Your task to perform on an android device: Turn off the flashlight Image 0: 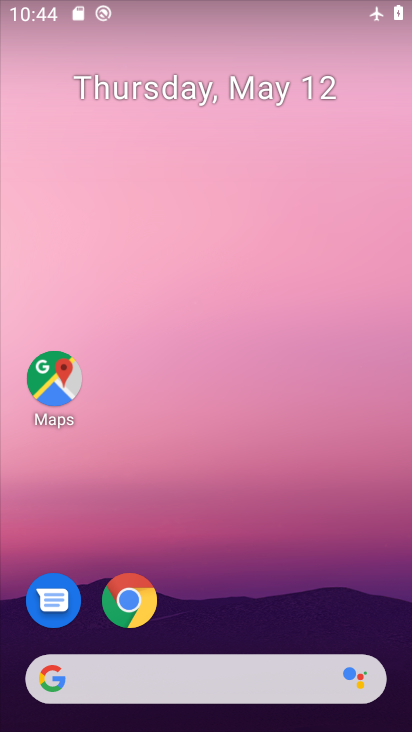
Step 0: drag from (225, 583) to (92, 128)
Your task to perform on an android device: Turn off the flashlight Image 1: 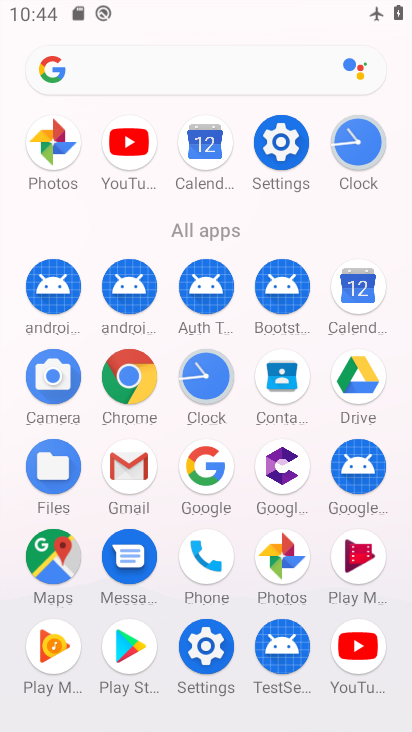
Step 1: click (293, 127)
Your task to perform on an android device: Turn off the flashlight Image 2: 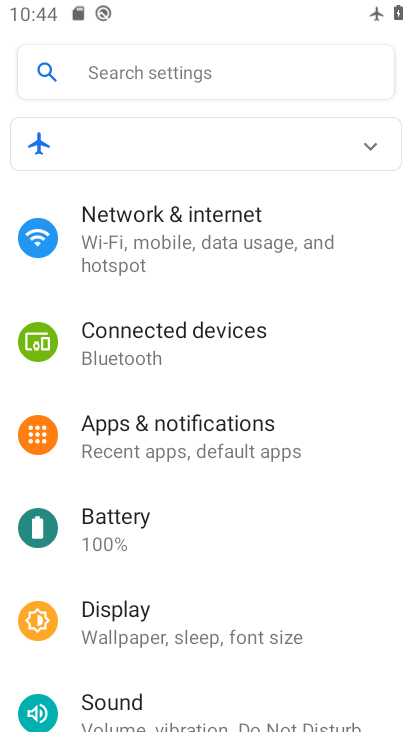
Step 2: click (180, 73)
Your task to perform on an android device: Turn off the flashlight Image 3: 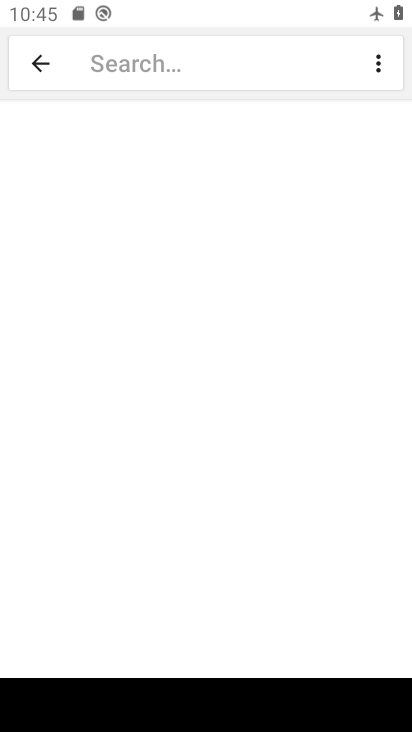
Step 3: type "flashlight"
Your task to perform on an android device: Turn off the flashlight Image 4: 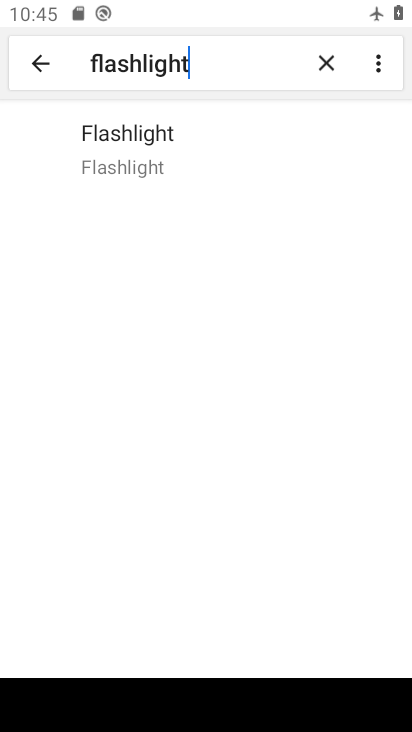
Step 4: click (141, 162)
Your task to perform on an android device: Turn off the flashlight Image 5: 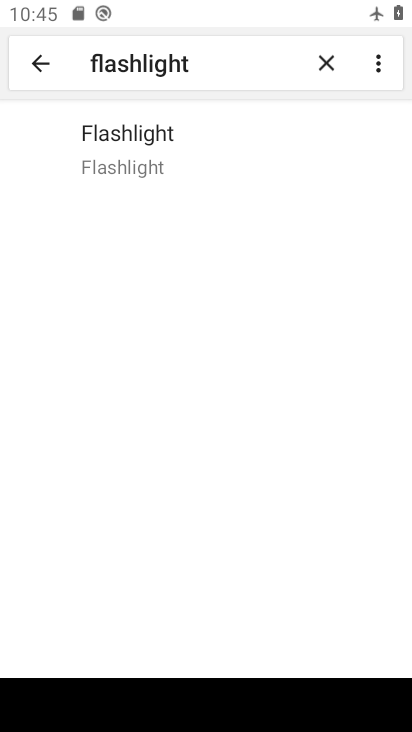
Step 5: click (141, 162)
Your task to perform on an android device: Turn off the flashlight Image 6: 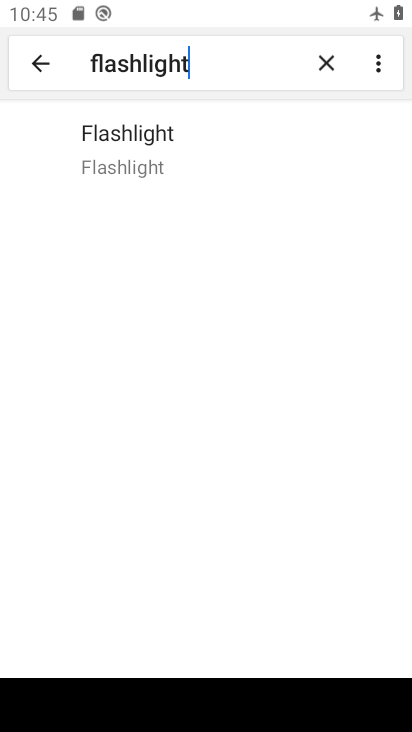
Step 6: click (142, 161)
Your task to perform on an android device: Turn off the flashlight Image 7: 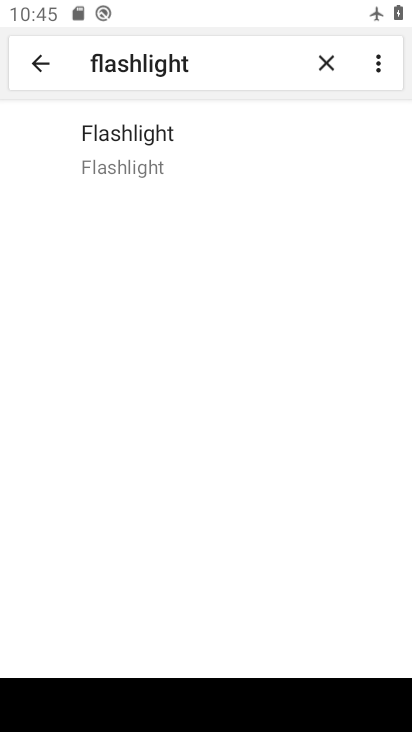
Step 7: click (147, 156)
Your task to perform on an android device: Turn off the flashlight Image 8: 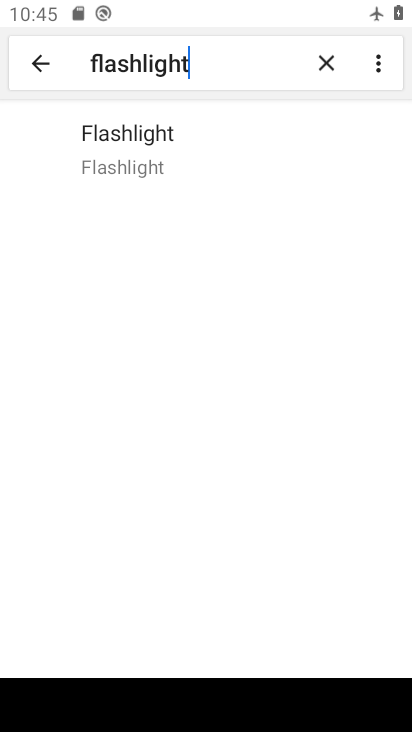
Step 8: click (147, 156)
Your task to perform on an android device: Turn off the flashlight Image 9: 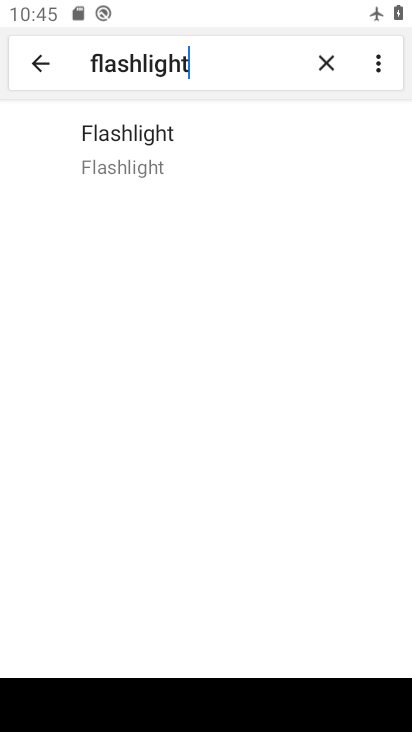
Step 9: click (147, 156)
Your task to perform on an android device: Turn off the flashlight Image 10: 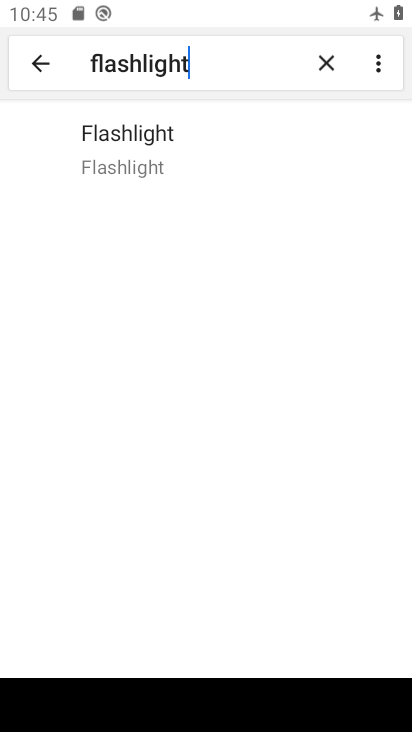
Step 10: task complete